Your task to perform on an android device: Is it going to rain today? Image 0: 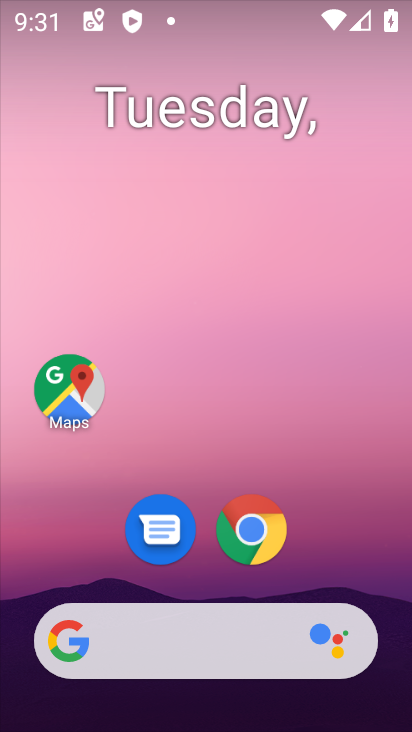
Step 0: drag from (210, 679) to (226, 197)
Your task to perform on an android device: Is it going to rain today? Image 1: 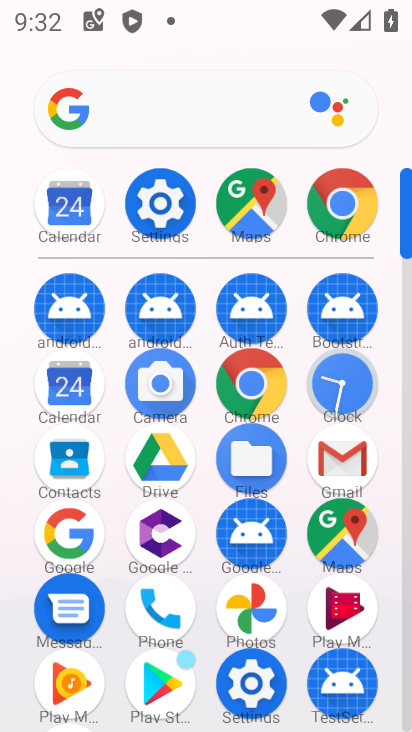
Step 1: click (74, 538)
Your task to perform on an android device: Is it going to rain today? Image 2: 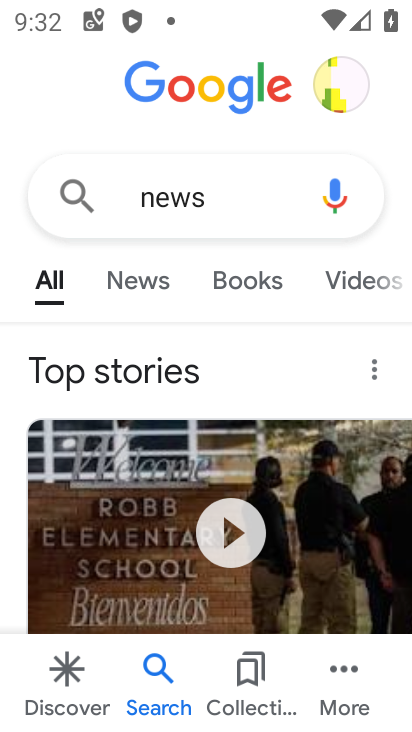
Step 2: click (259, 144)
Your task to perform on an android device: Is it going to rain today? Image 3: 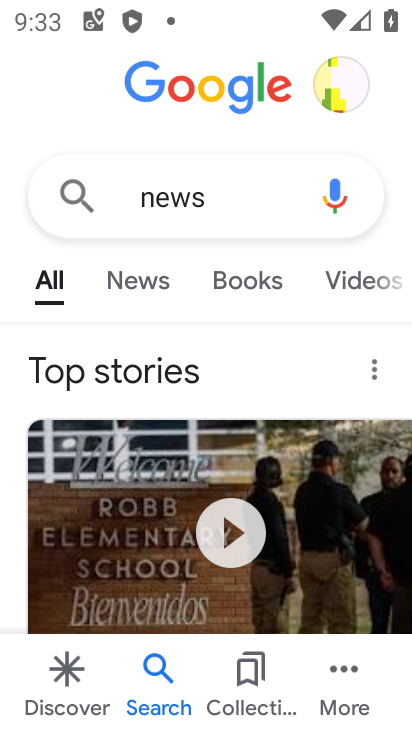
Step 3: click (248, 213)
Your task to perform on an android device: Is it going to rain today? Image 4: 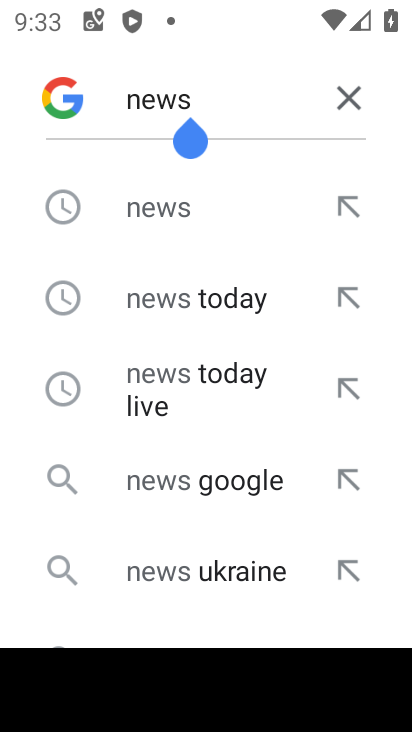
Step 4: click (356, 107)
Your task to perform on an android device: Is it going to rain today? Image 5: 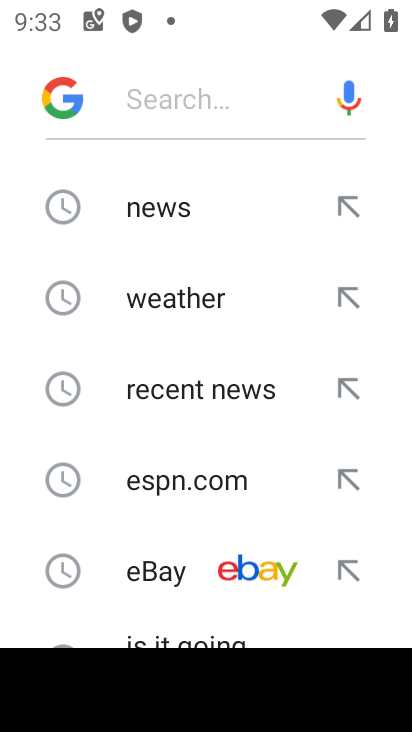
Step 5: click (271, 295)
Your task to perform on an android device: Is it going to rain today? Image 6: 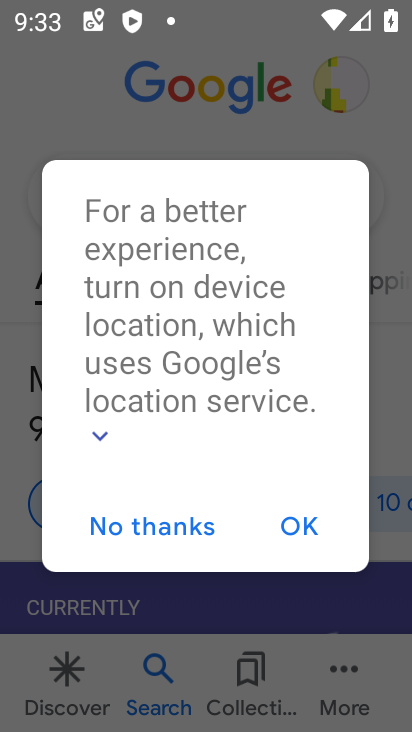
Step 6: click (312, 527)
Your task to perform on an android device: Is it going to rain today? Image 7: 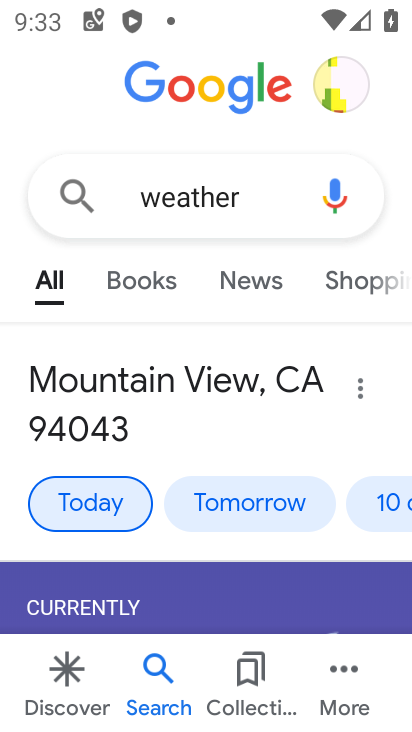
Step 7: task complete